Your task to perform on an android device: Go to CNN.com Image 0: 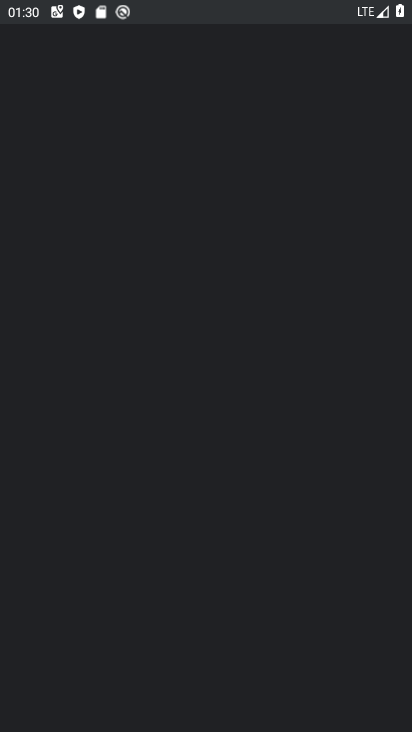
Step 0: press home button
Your task to perform on an android device: Go to CNN.com Image 1: 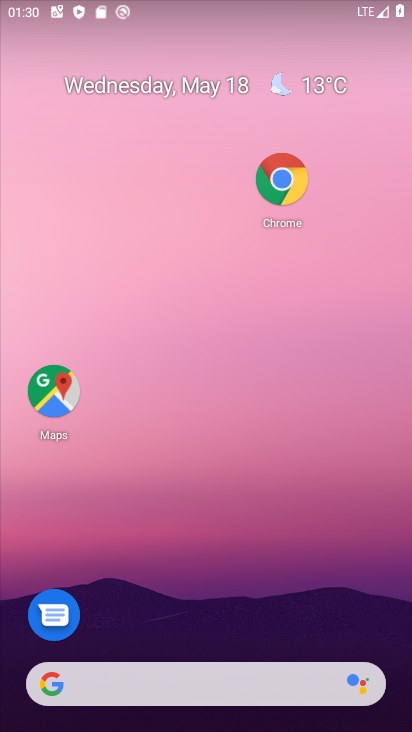
Step 1: click (286, 192)
Your task to perform on an android device: Go to CNN.com Image 2: 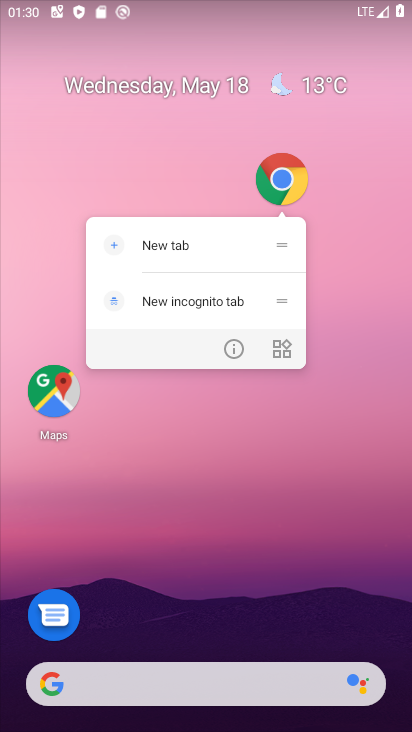
Step 2: click (289, 183)
Your task to perform on an android device: Go to CNN.com Image 3: 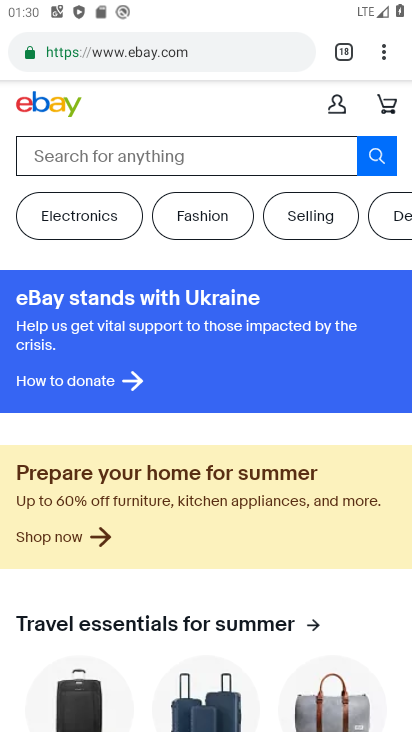
Step 3: drag from (385, 57) to (275, 102)
Your task to perform on an android device: Go to CNN.com Image 4: 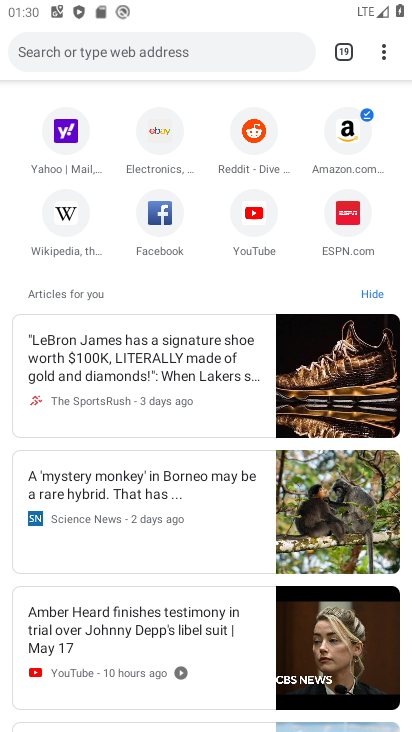
Step 4: click (144, 48)
Your task to perform on an android device: Go to CNN.com Image 5: 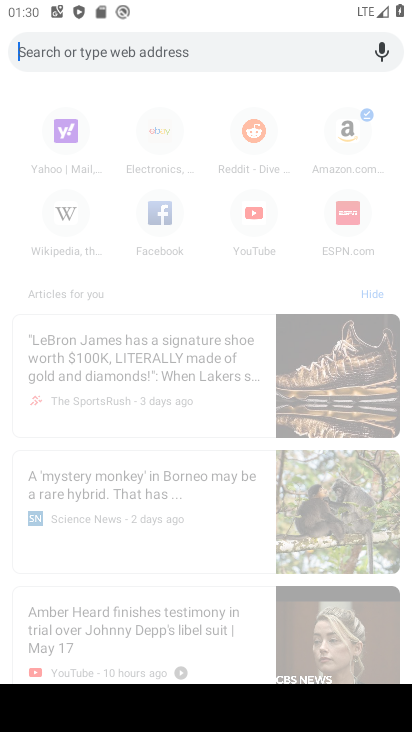
Step 5: type "cnn.com"
Your task to perform on an android device: Go to CNN.com Image 6: 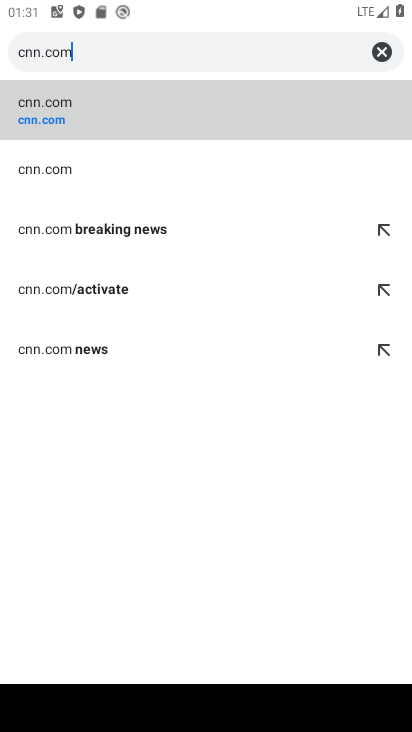
Step 6: click (94, 117)
Your task to perform on an android device: Go to CNN.com Image 7: 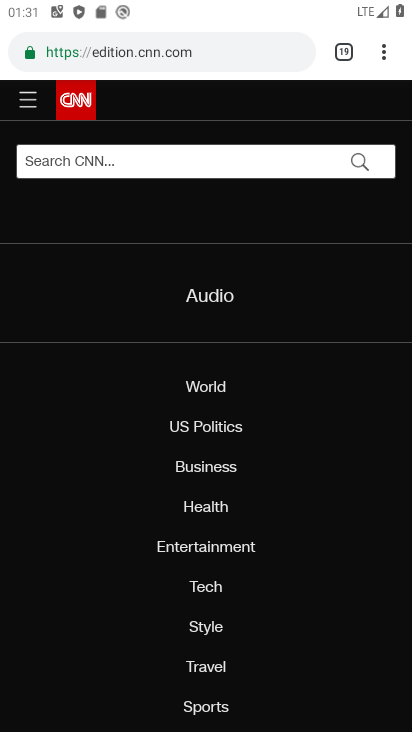
Step 7: task complete